Your task to perform on an android device: search for starred emails in the gmail app Image 0: 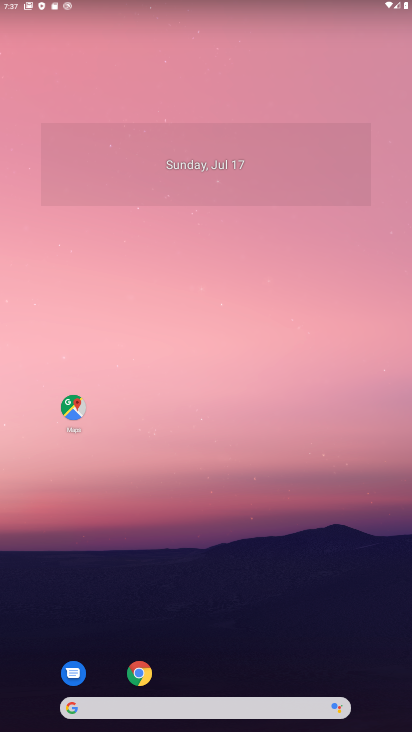
Step 0: drag from (20, 695) to (203, 155)
Your task to perform on an android device: search for starred emails in the gmail app Image 1: 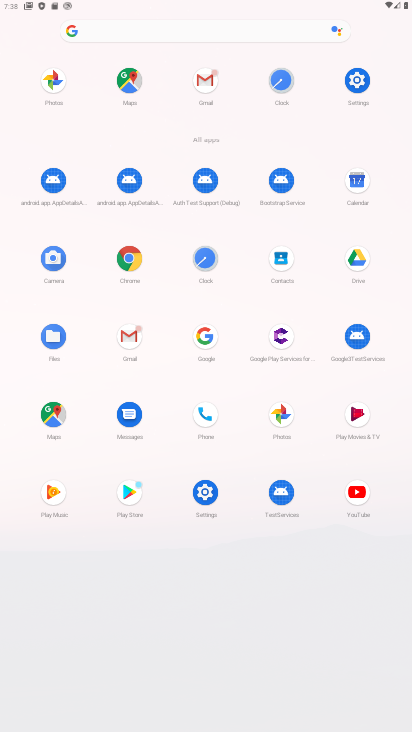
Step 1: click (128, 335)
Your task to perform on an android device: search for starred emails in the gmail app Image 2: 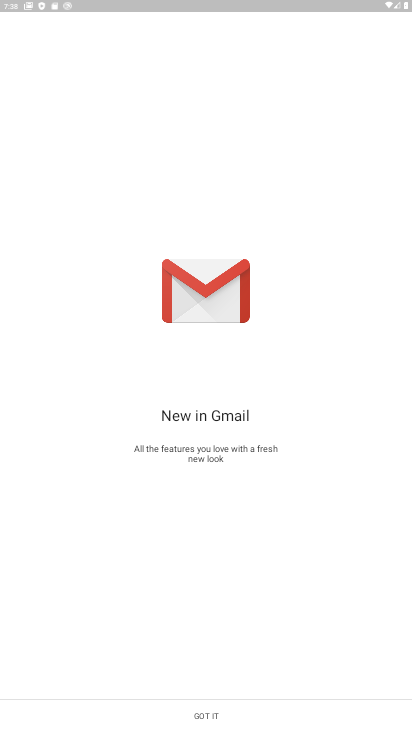
Step 2: click (206, 711)
Your task to perform on an android device: search for starred emails in the gmail app Image 3: 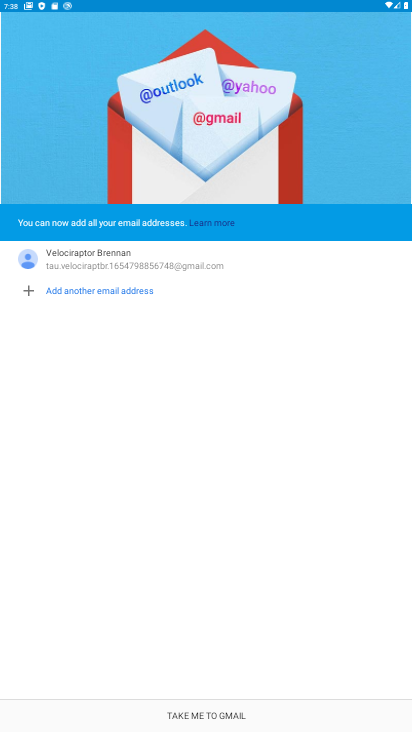
Step 3: click (194, 724)
Your task to perform on an android device: search for starred emails in the gmail app Image 4: 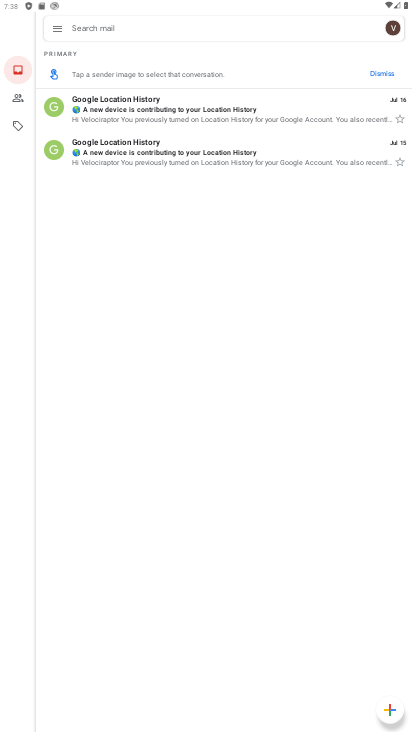
Step 4: click (55, 31)
Your task to perform on an android device: search for starred emails in the gmail app Image 5: 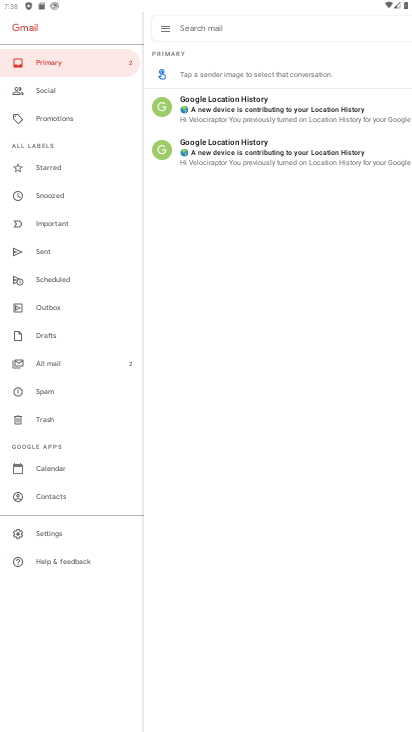
Step 5: click (46, 173)
Your task to perform on an android device: search for starred emails in the gmail app Image 6: 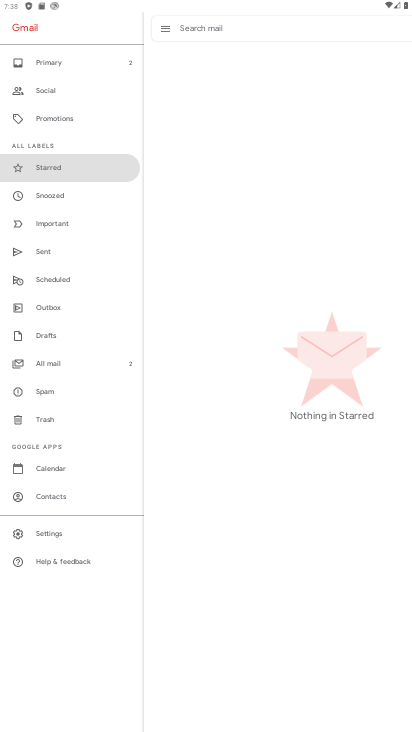
Step 6: task complete